Your task to perform on an android device: toggle location history Image 0: 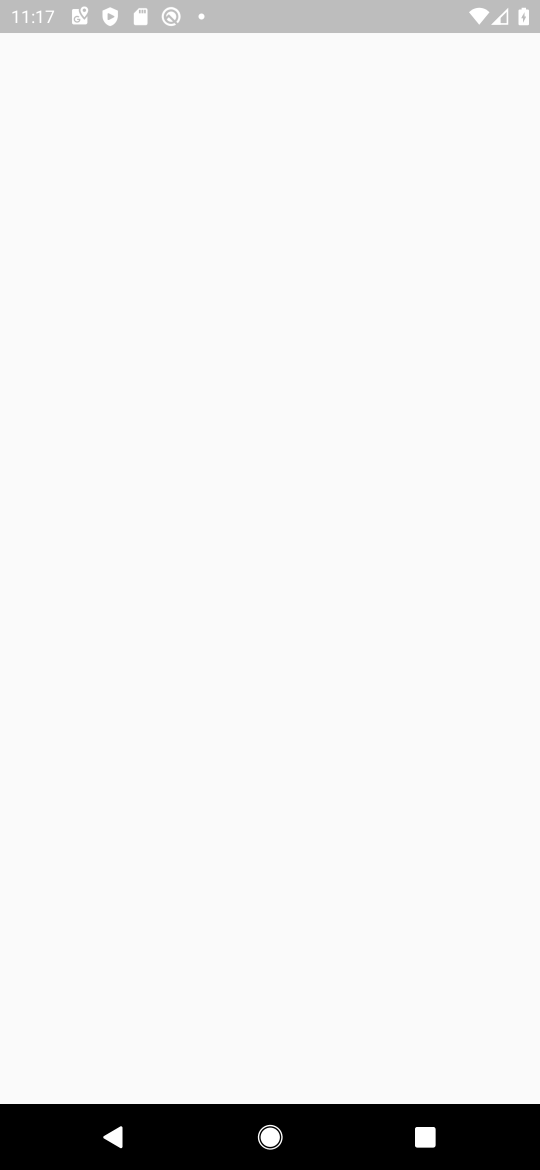
Step 0: press home button
Your task to perform on an android device: toggle location history Image 1: 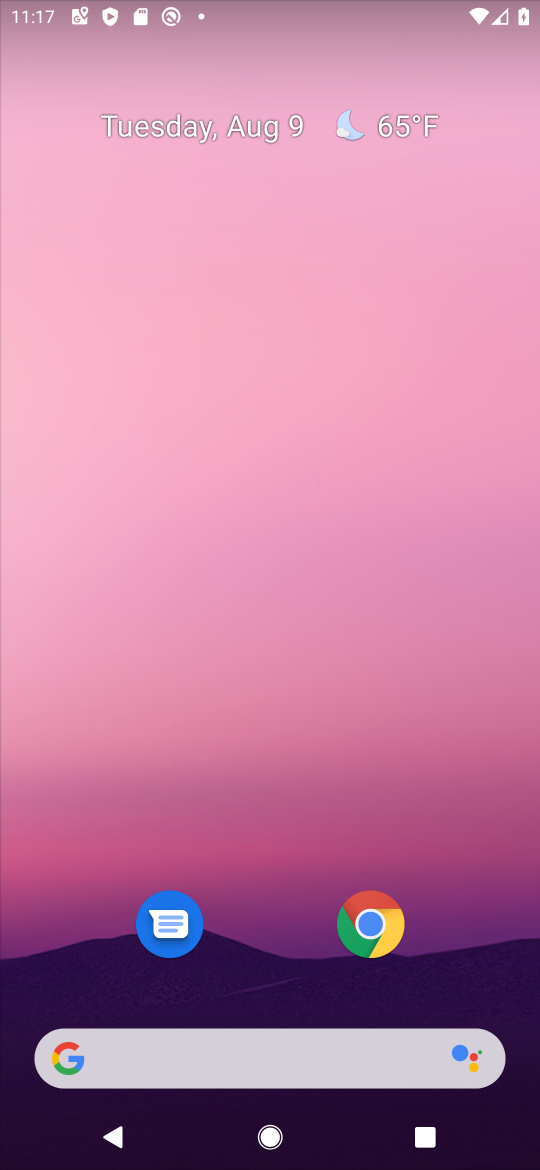
Step 1: drag from (293, 934) to (285, 2)
Your task to perform on an android device: toggle location history Image 2: 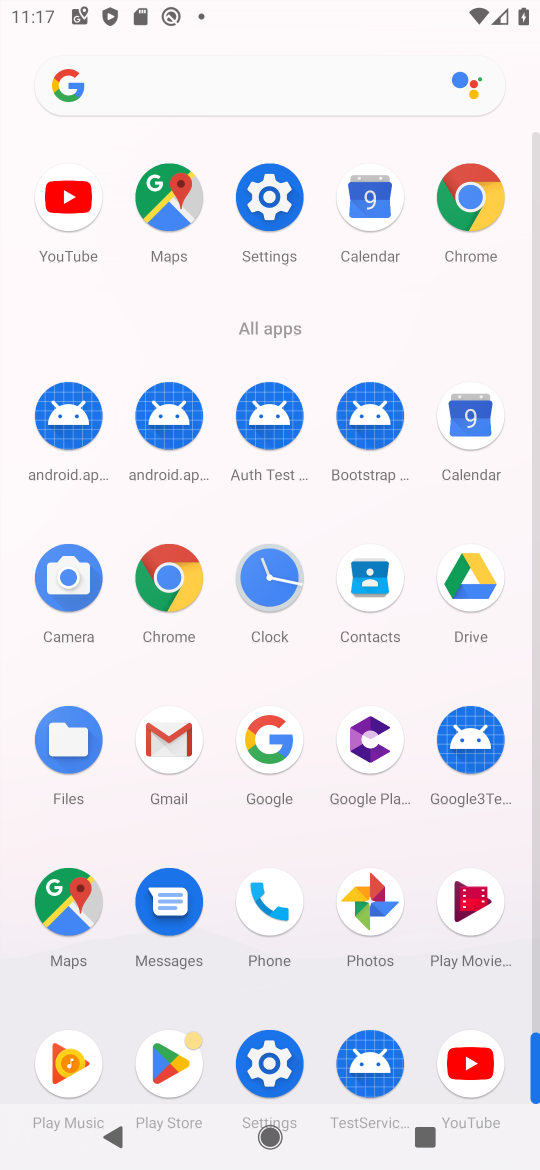
Step 2: click (267, 1054)
Your task to perform on an android device: toggle location history Image 3: 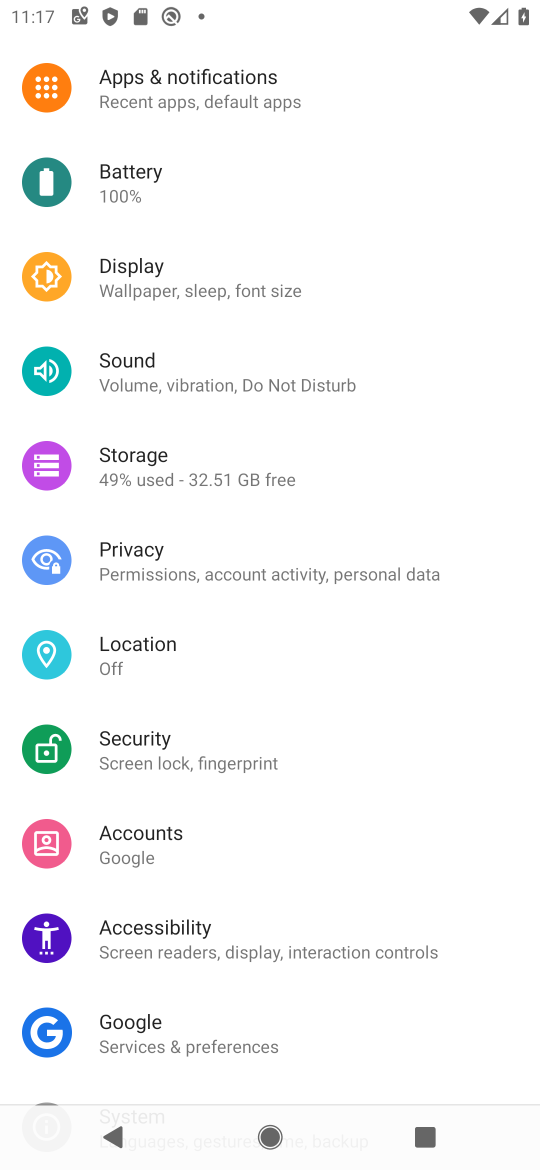
Step 3: press home button
Your task to perform on an android device: toggle location history Image 4: 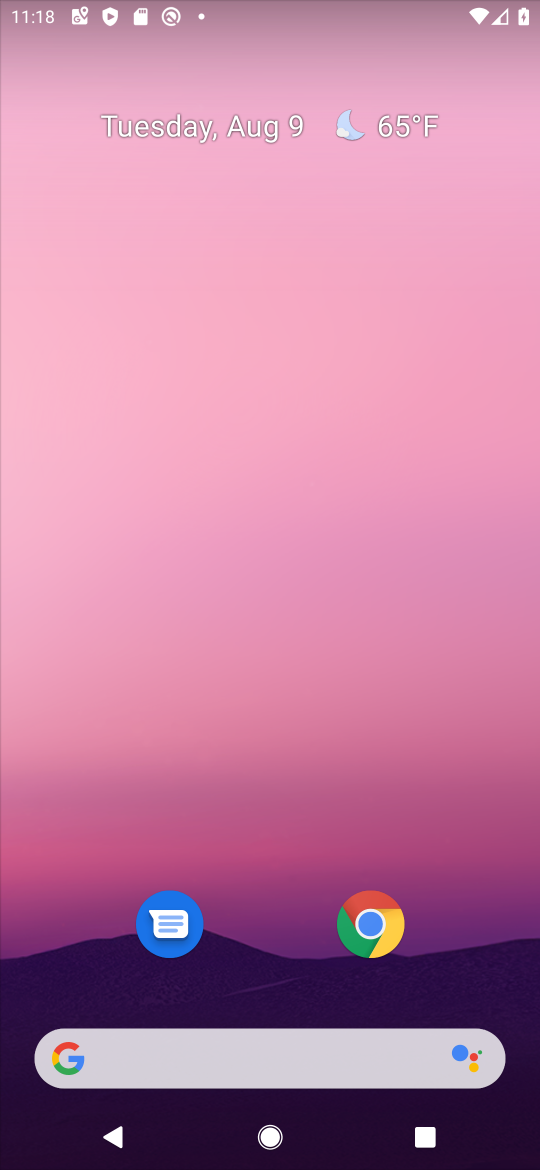
Step 4: drag from (267, 999) to (382, 12)
Your task to perform on an android device: toggle location history Image 5: 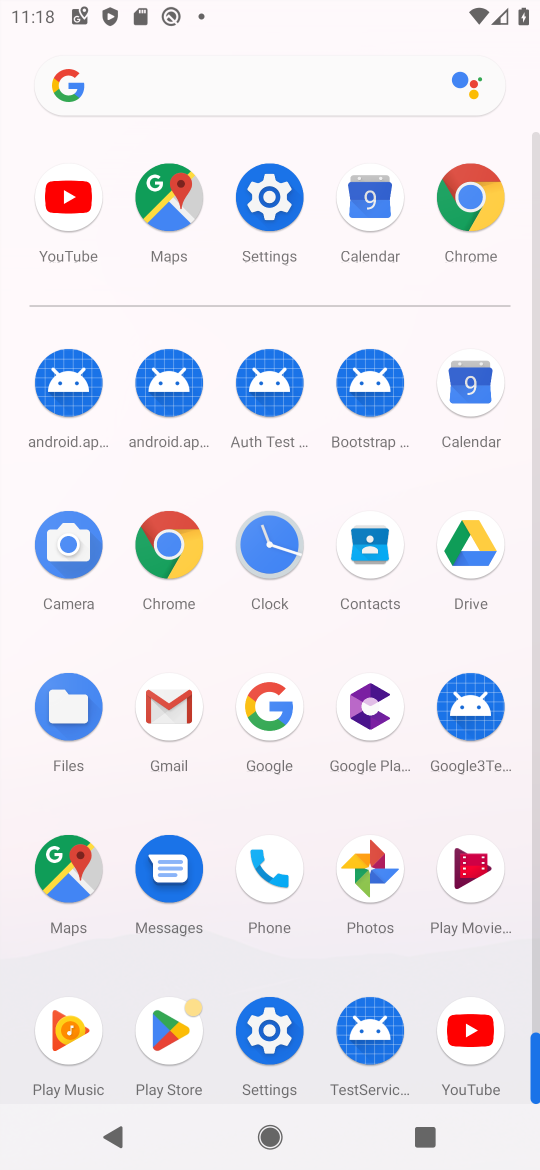
Step 5: click (64, 850)
Your task to perform on an android device: toggle location history Image 6: 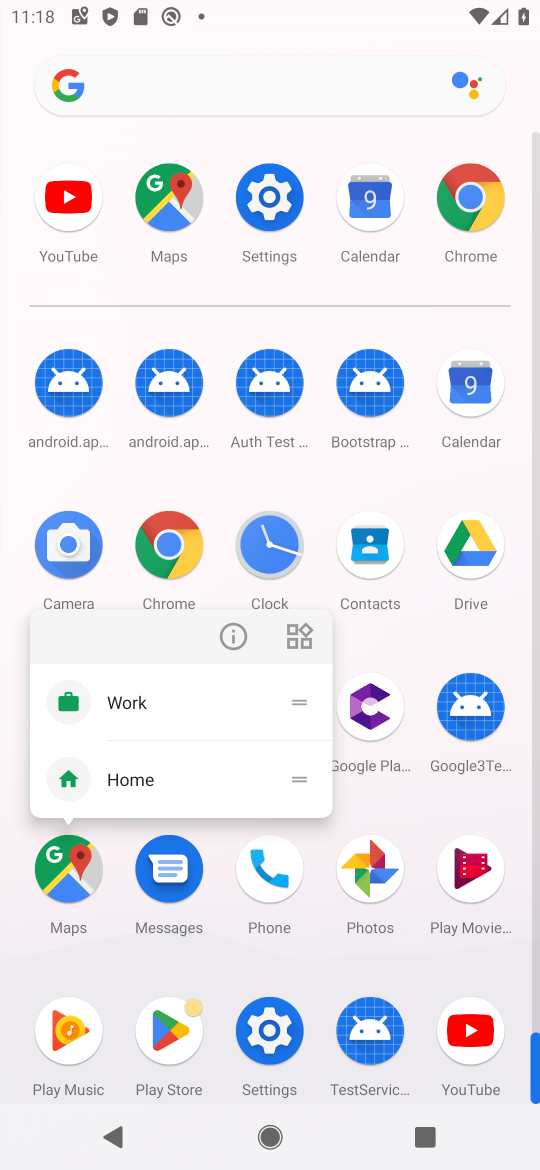
Step 6: click (64, 850)
Your task to perform on an android device: toggle location history Image 7: 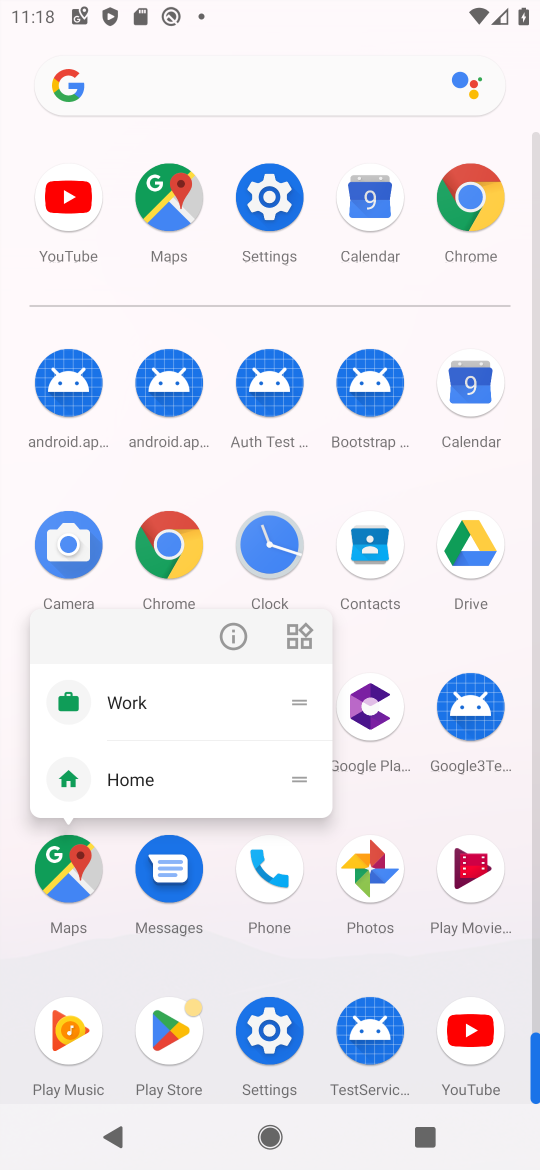
Step 7: click (64, 850)
Your task to perform on an android device: toggle location history Image 8: 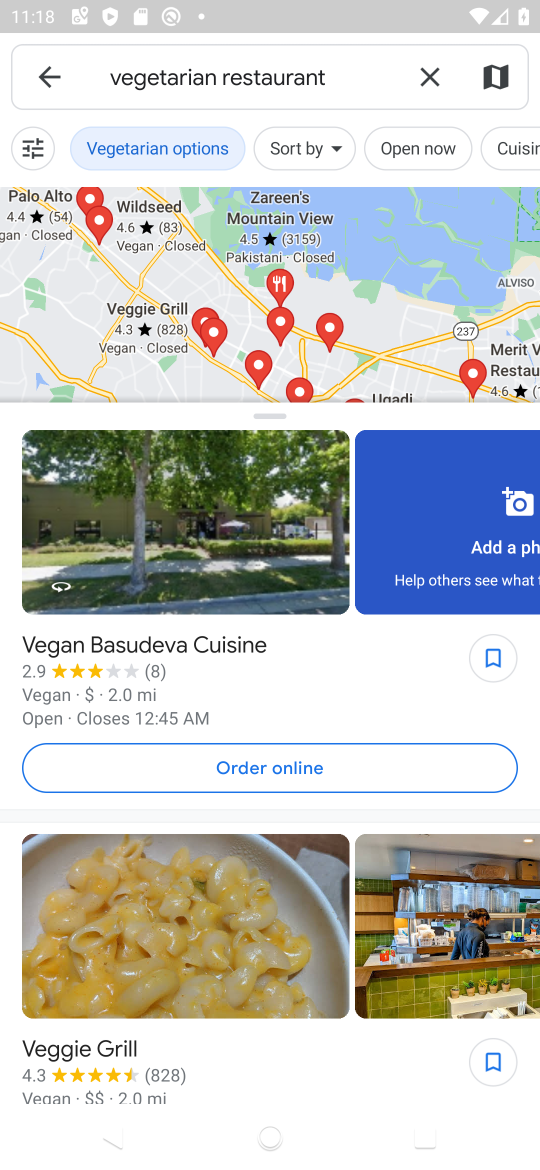
Step 8: click (45, 68)
Your task to perform on an android device: toggle location history Image 9: 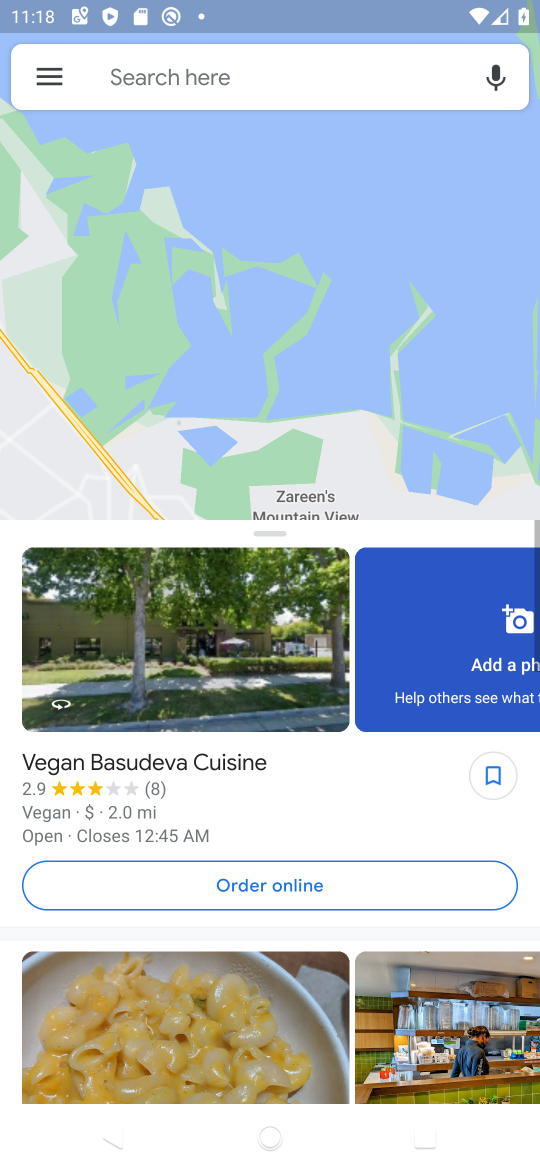
Step 9: click (45, 68)
Your task to perform on an android device: toggle location history Image 10: 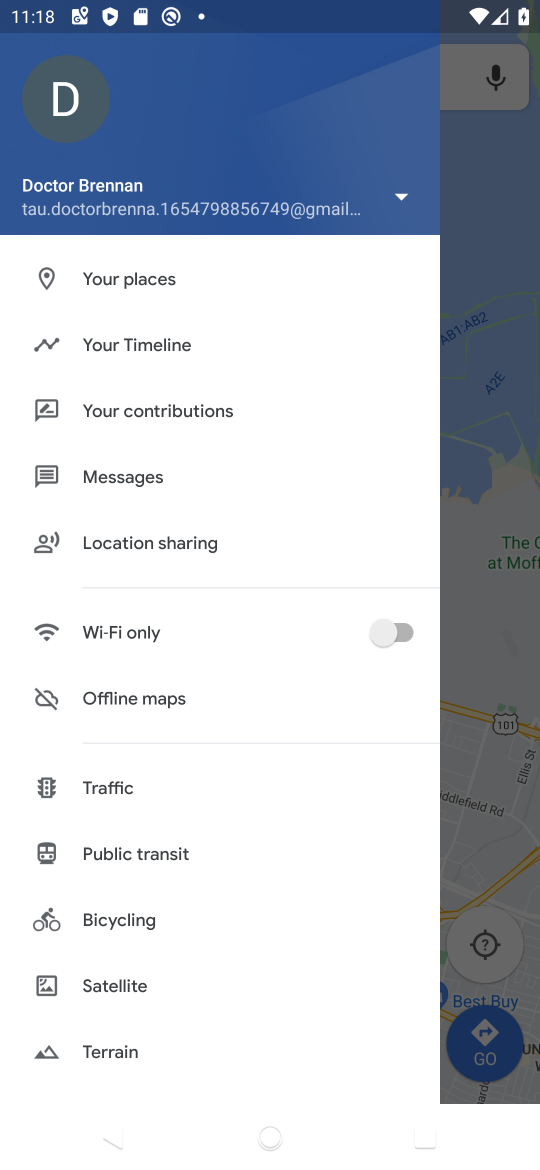
Step 10: click (142, 332)
Your task to perform on an android device: toggle location history Image 11: 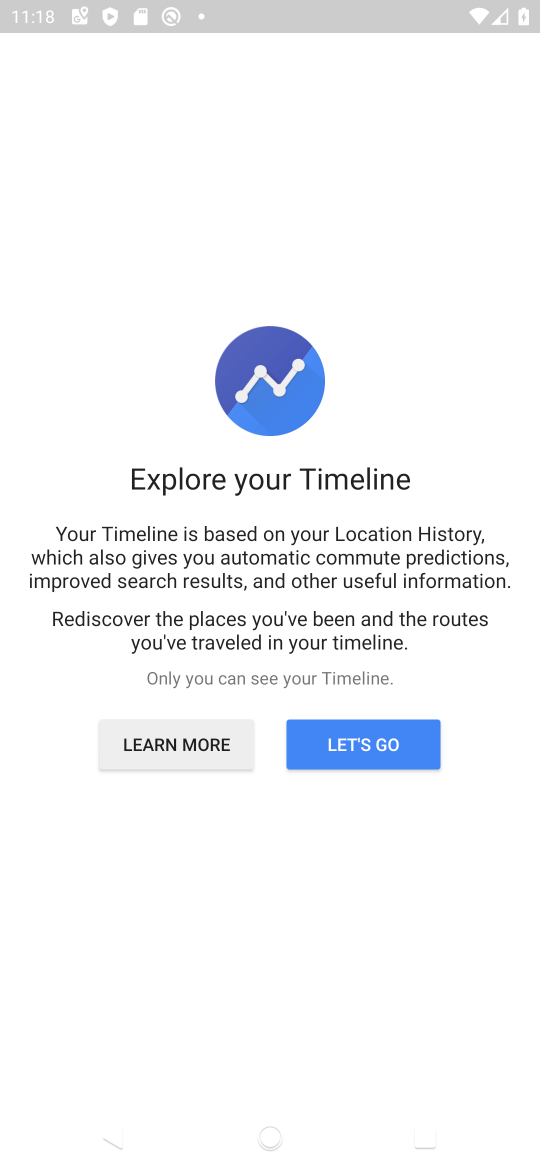
Step 11: click (379, 746)
Your task to perform on an android device: toggle location history Image 12: 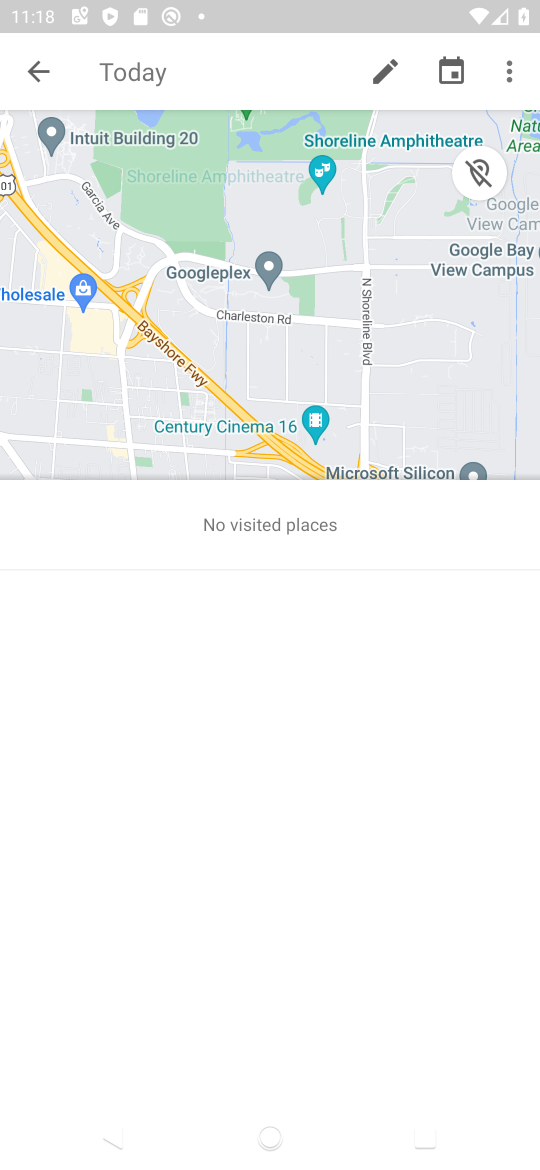
Step 12: click (506, 58)
Your task to perform on an android device: toggle location history Image 13: 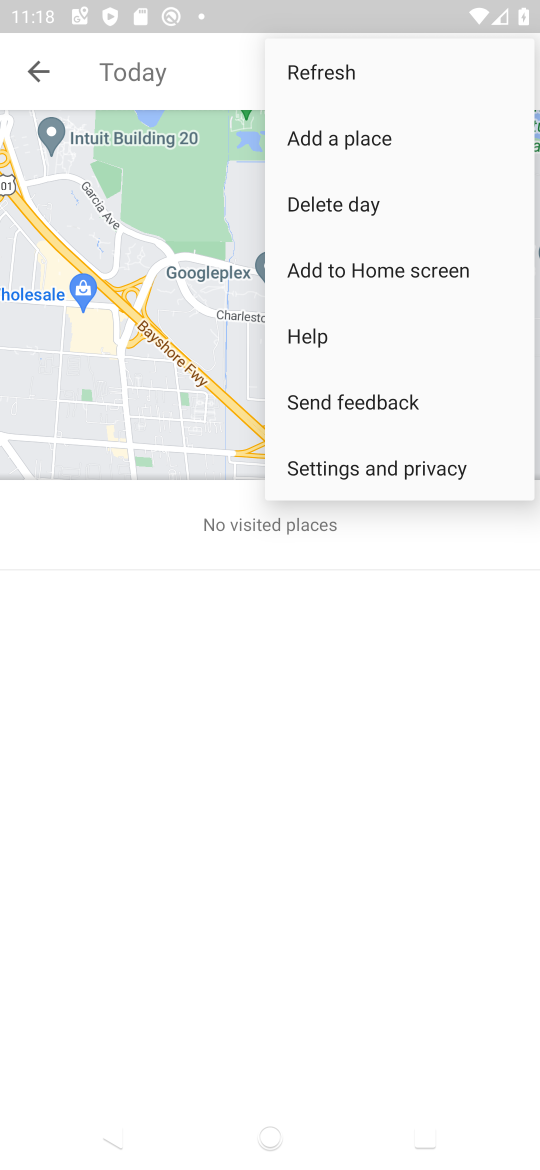
Step 13: click (361, 463)
Your task to perform on an android device: toggle location history Image 14: 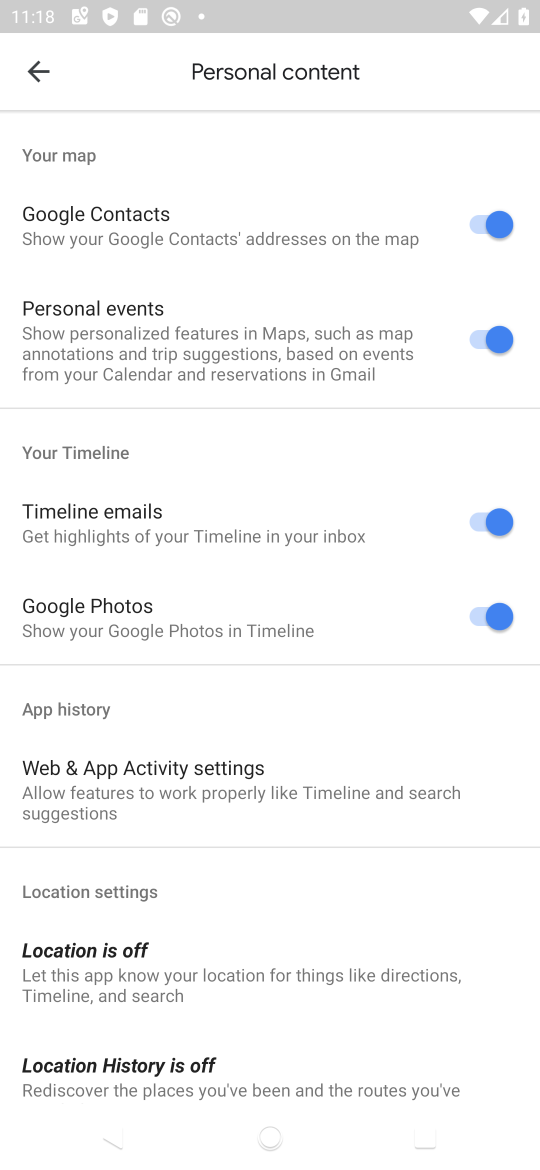
Step 14: click (112, 1067)
Your task to perform on an android device: toggle location history Image 15: 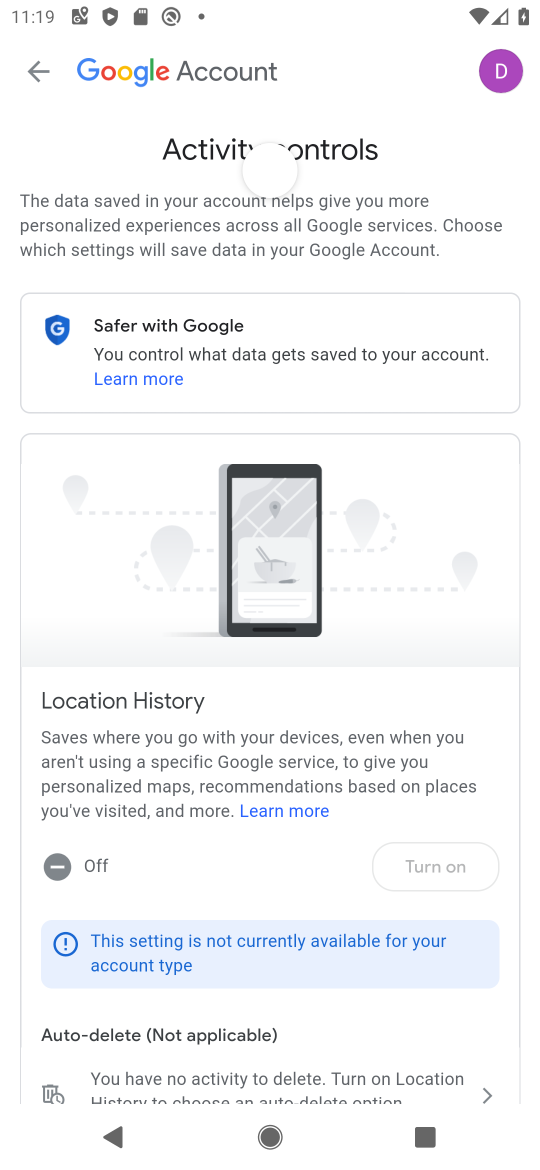
Step 15: task complete